Your task to perform on an android device: check android version Image 0: 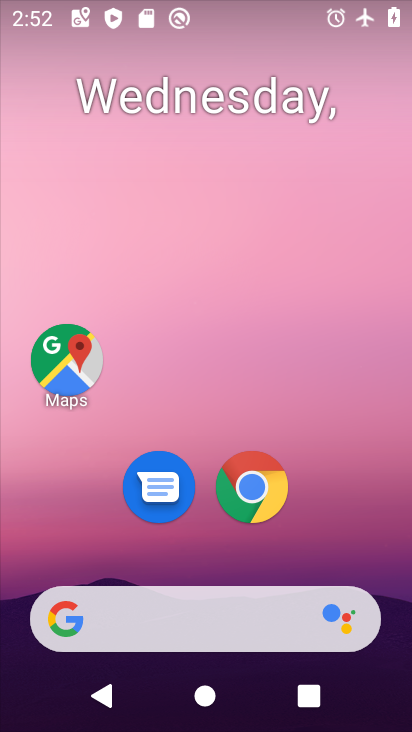
Step 0: drag from (374, 554) to (363, 136)
Your task to perform on an android device: check android version Image 1: 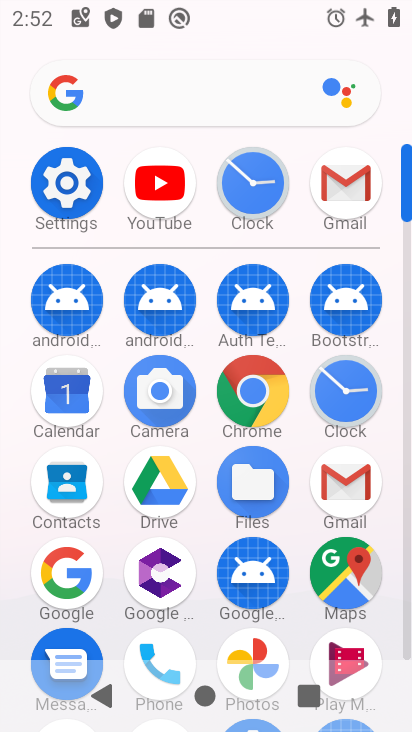
Step 1: click (81, 201)
Your task to perform on an android device: check android version Image 2: 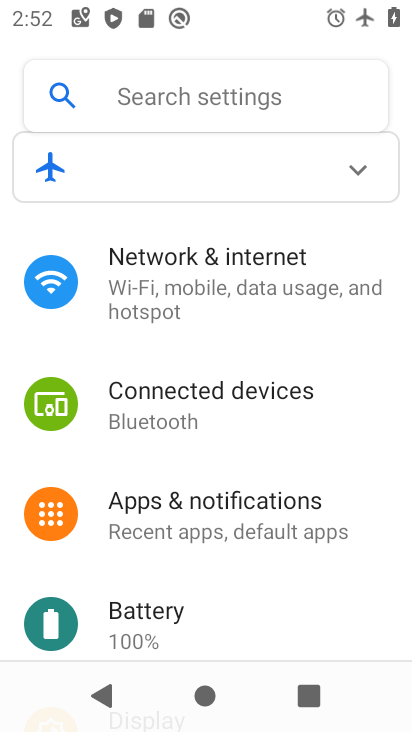
Step 2: drag from (372, 453) to (362, 375)
Your task to perform on an android device: check android version Image 3: 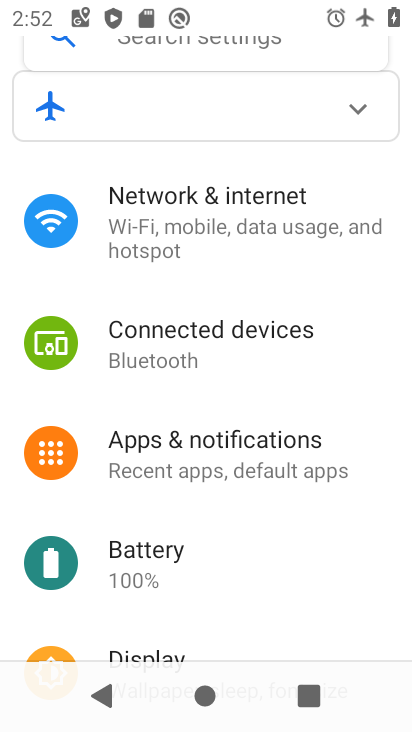
Step 3: drag from (366, 472) to (374, 365)
Your task to perform on an android device: check android version Image 4: 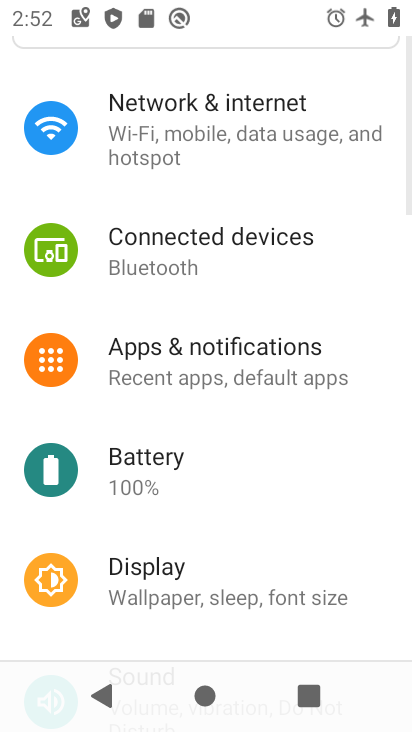
Step 4: drag from (360, 502) to (361, 422)
Your task to perform on an android device: check android version Image 5: 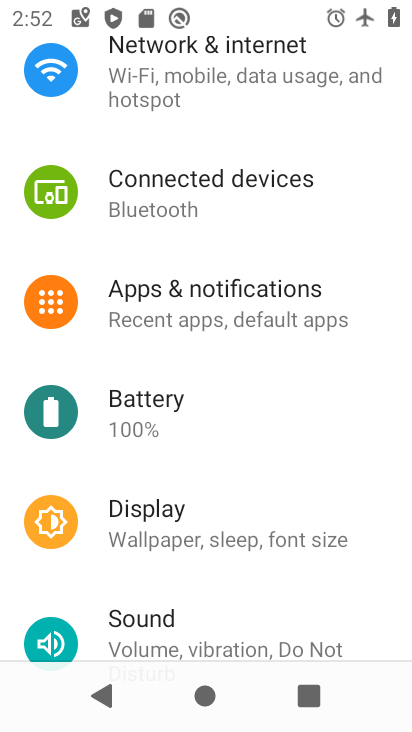
Step 5: drag from (357, 561) to (349, 477)
Your task to perform on an android device: check android version Image 6: 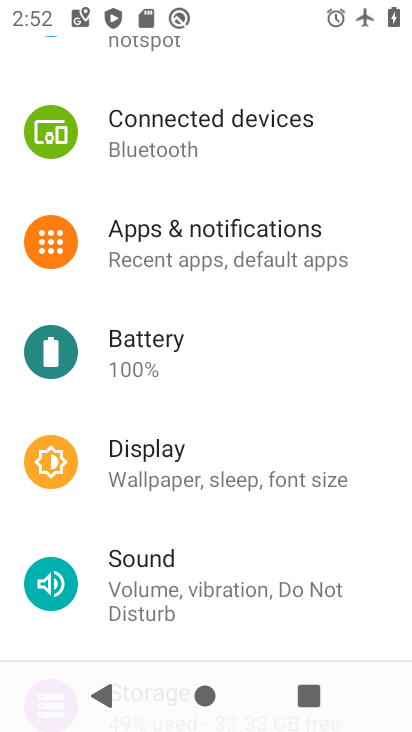
Step 6: drag from (347, 547) to (349, 472)
Your task to perform on an android device: check android version Image 7: 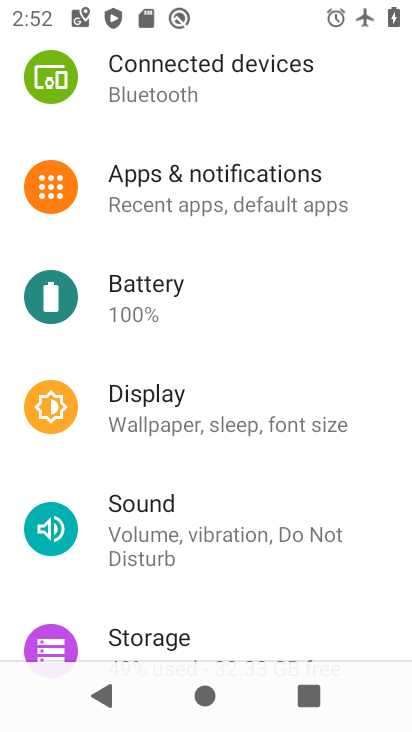
Step 7: drag from (349, 551) to (355, 459)
Your task to perform on an android device: check android version Image 8: 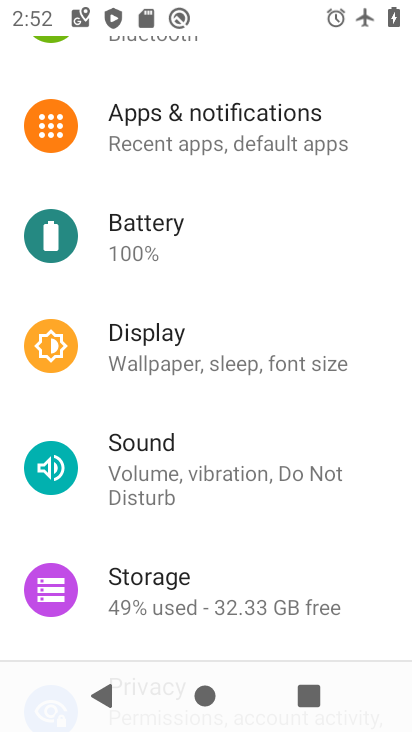
Step 8: drag from (365, 541) to (363, 472)
Your task to perform on an android device: check android version Image 9: 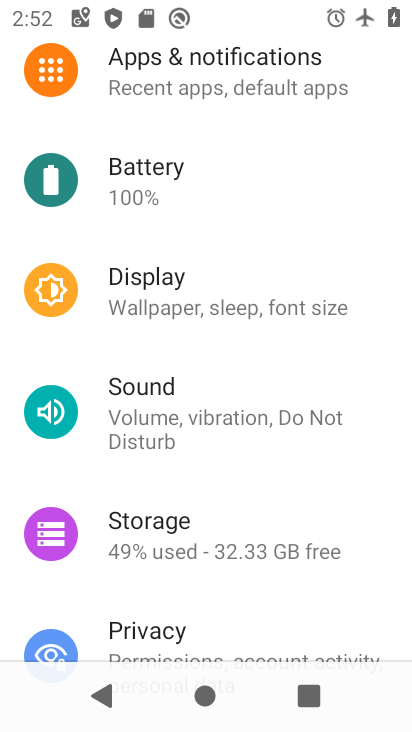
Step 9: drag from (359, 551) to (362, 464)
Your task to perform on an android device: check android version Image 10: 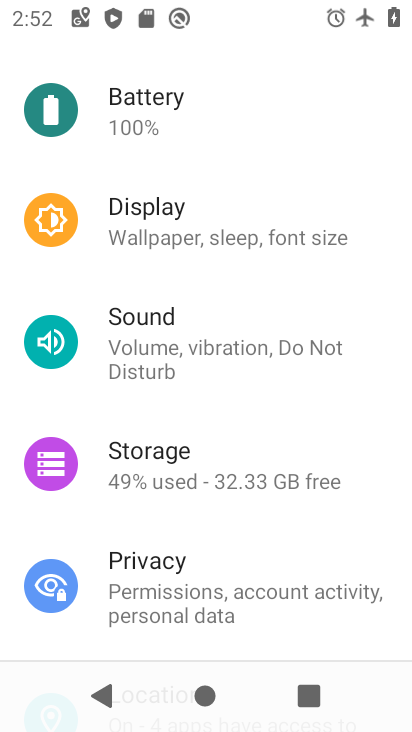
Step 10: drag from (371, 537) to (374, 470)
Your task to perform on an android device: check android version Image 11: 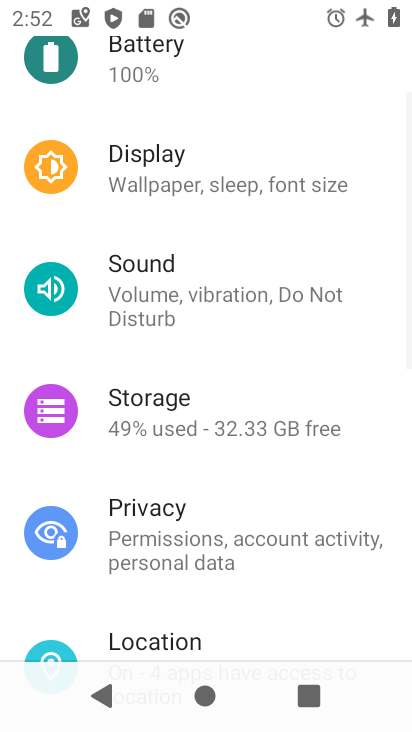
Step 11: drag from (371, 553) to (366, 470)
Your task to perform on an android device: check android version Image 12: 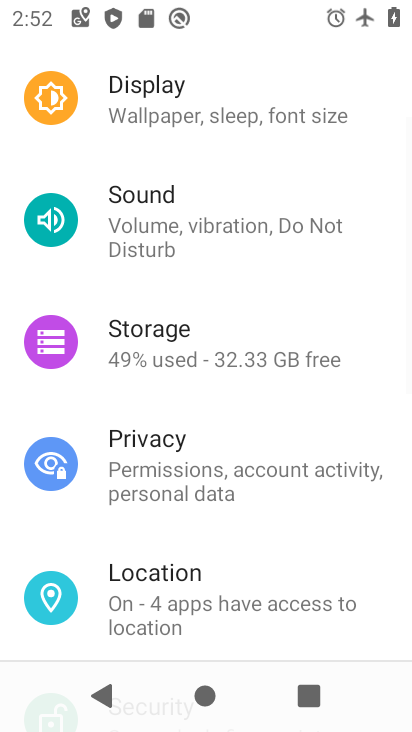
Step 12: drag from (361, 533) to (351, 464)
Your task to perform on an android device: check android version Image 13: 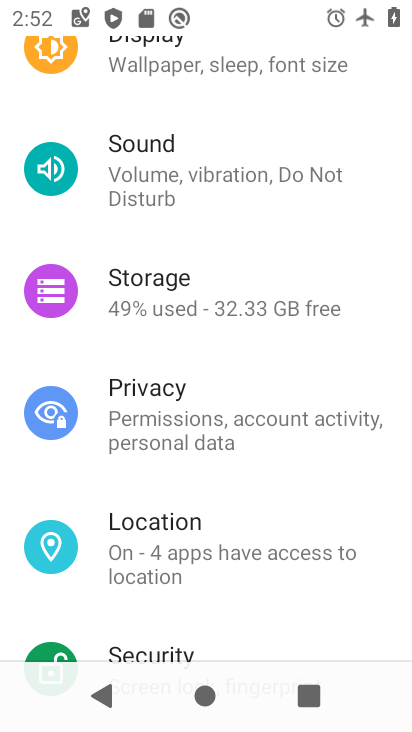
Step 13: drag from (359, 580) to (374, 454)
Your task to perform on an android device: check android version Image 14: 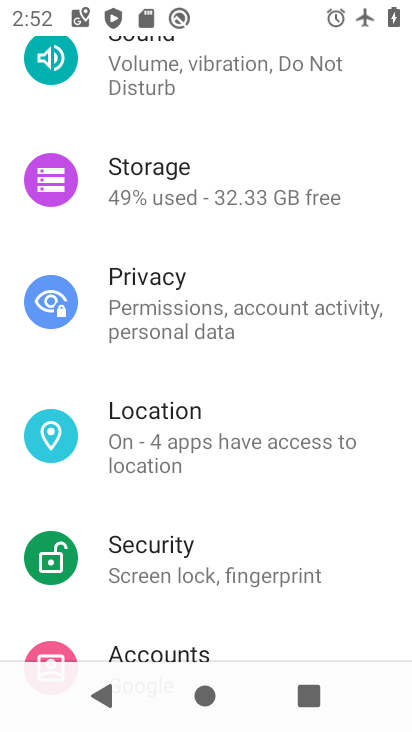
Step 14: drag from (364, 541) to (354, 443)
Your task to perform on an android device: check android version Image 15: 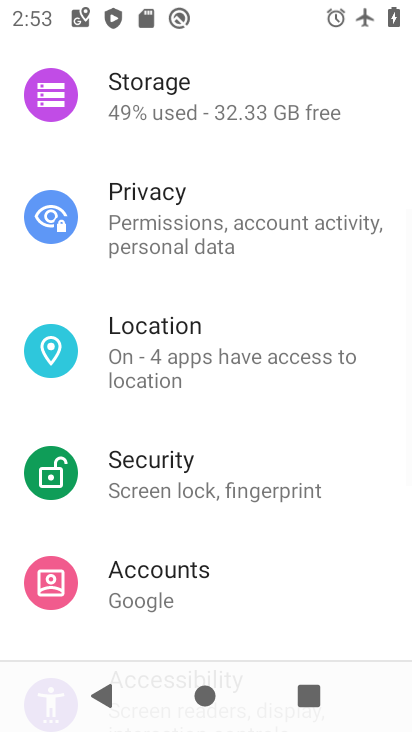
Step 15: drag from (359, 539) to (356, 421)
Your task to perform on an android device: check android version Image 16: 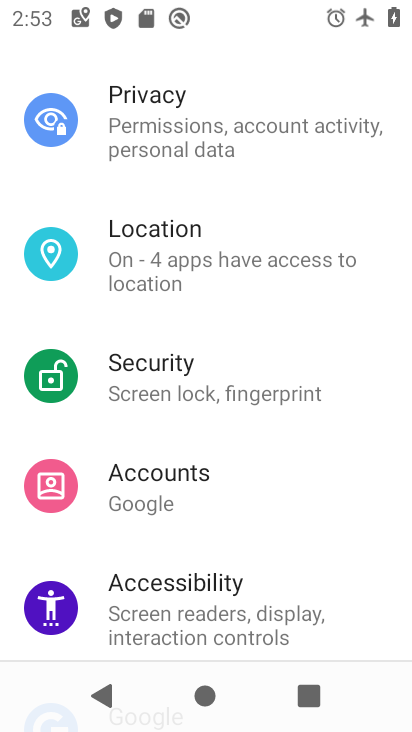
Step 16: drag from (357, 522) to (345, 421)
Your task to perform on an android device: check android version Image 17: 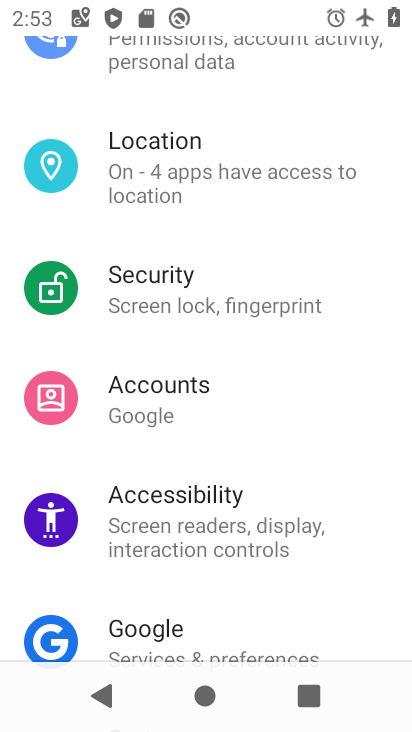
Step 17: drag from (362, 522) to (372, 425)
Your task to perform on an android device: check android version Image 18: 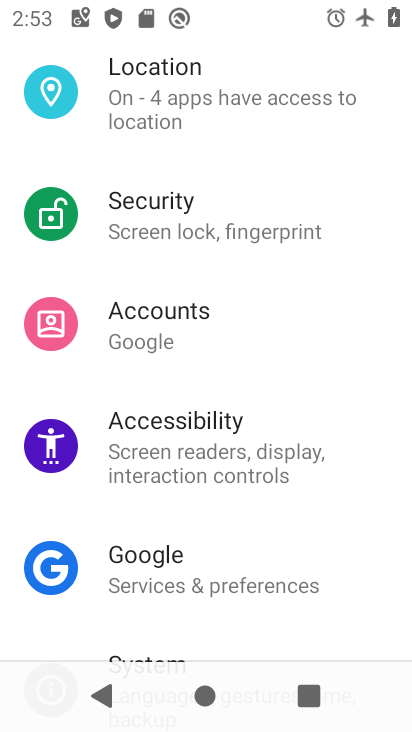
Step 18: drag from (358, 531) to (359, 426)
Your task to perform on an android device: check android version Image 19: 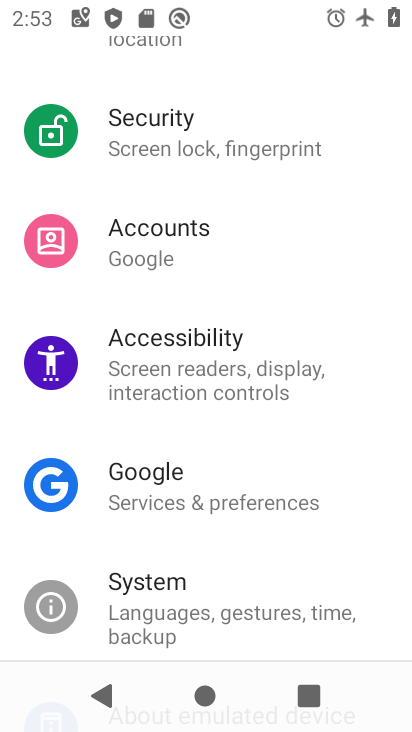
Step 19: drag from (353, 548) to (343, 443)
Your task to perform on an android device: check android version Image 20: 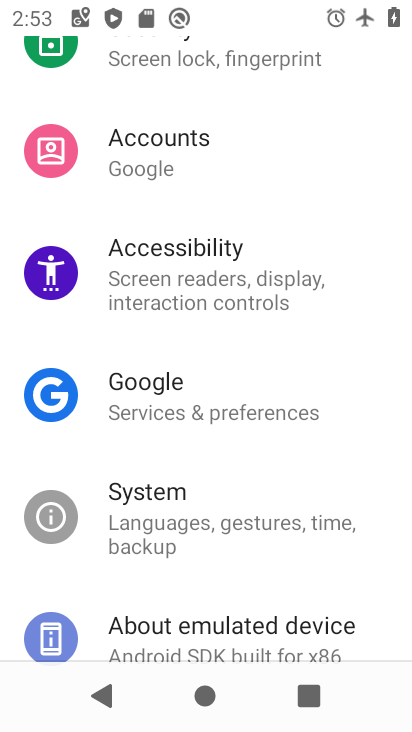
Step 20: click (291, 529)
Your task to perform on an android device: check android version Image 21: 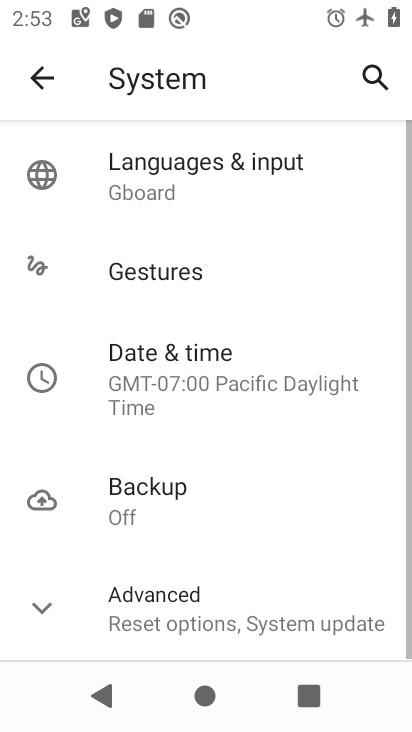
Step 21: drag from (294, 541) to (296, 413)
Your task to perform on an android device: check android version Image 22: 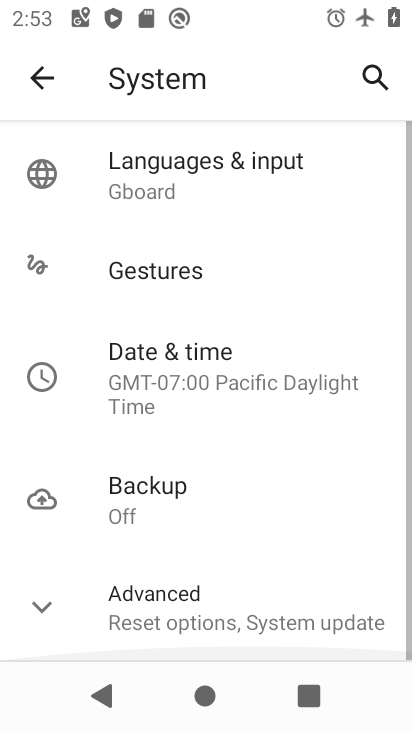
Step 22: click (299, 609)
Your task to perform on an android device: check android version Image 23: 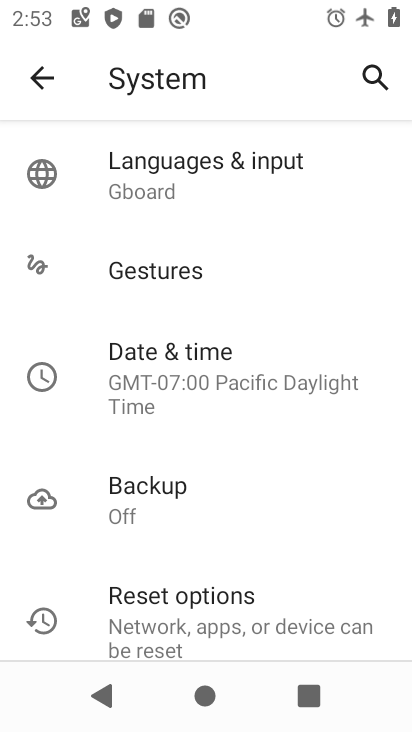
Step 23: drag from (297, 586) to (308, 431)
Your task to perform on an android device: check android version Image 24: 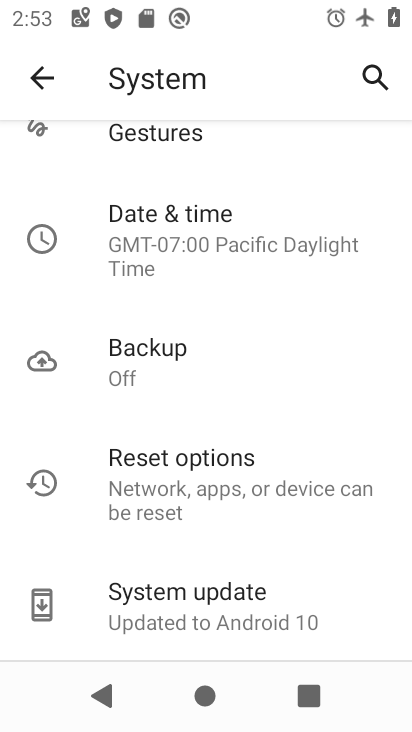
Step 24: click (309, 613)
Your task to perform on an android device: check android version Image 25: 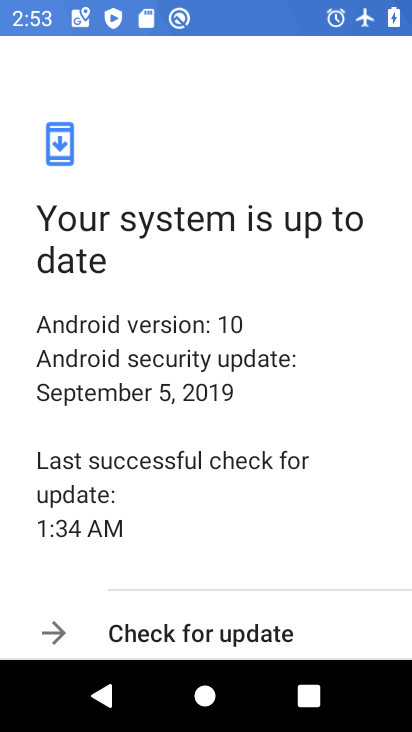
Step 25: task complete